Your task to perform on an android device: What's on my calendar today? Image 0: 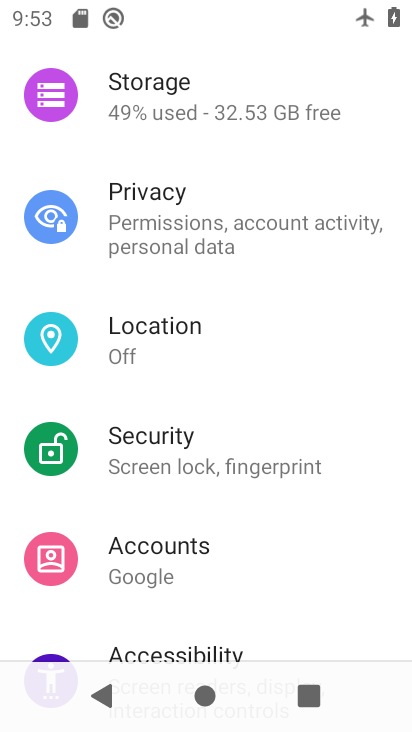
Step 0: press home button
Your task to perform on an android device: What's on my calendar today? Image 1: 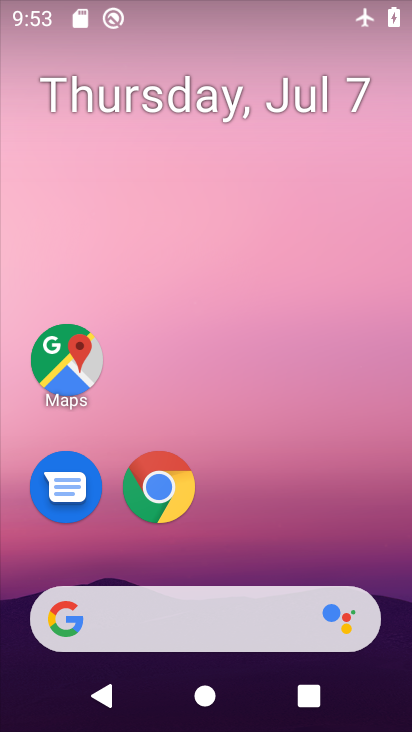
Step 1: drag from (379, 561) to (361, 150)
Your task to perform on an android device: What's on my calendar today? Image 2: 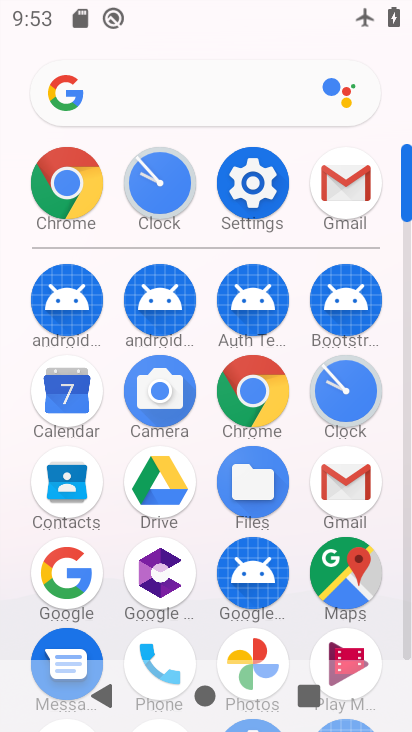
Step 2: click (68, 397)
Your task to perform on an android device: What's on my calendar today? Image 3: 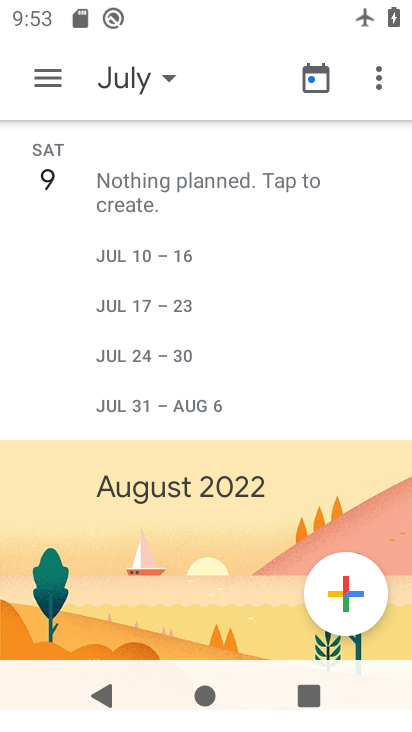
Step 3: click (163, 78)
Your task to perform on an android device: What's on my calendar today? Image 4: 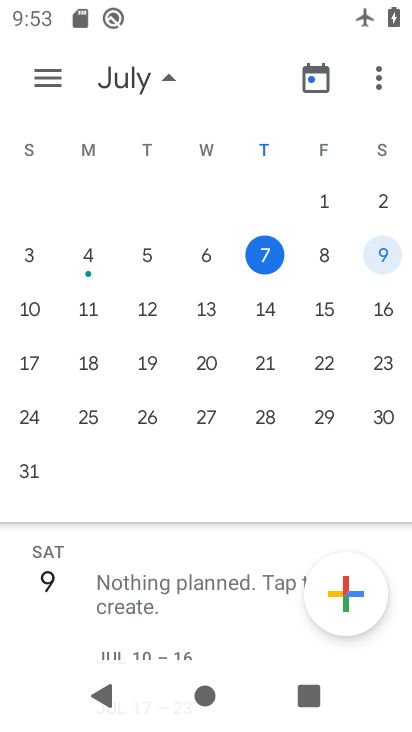
Step 4: click (321, 260)
Your task to perform on an android device: What's on my calendar today? Image 5: 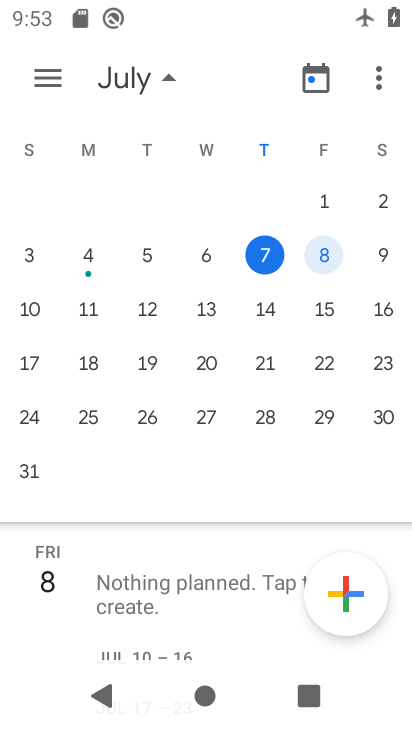
Step 5: task complete